Your task to perform on an android device: Search for vegetarian restaurants on Maps Image 0: 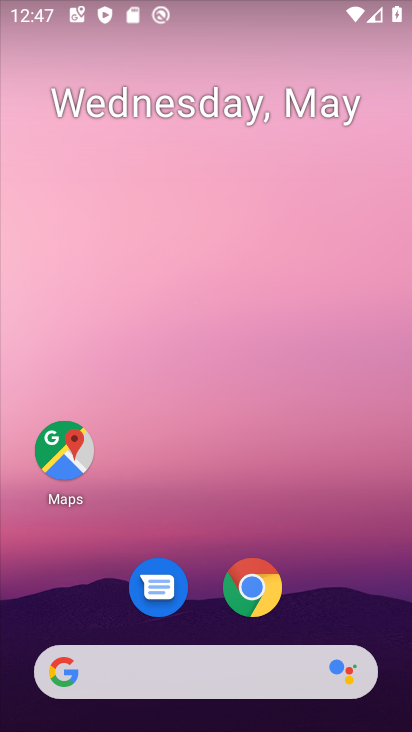
Step 0: drag from (368, 627) to (382, 239)
Your task to perform on an android device: Search for vegetarian restaurants on Maps Image 1: 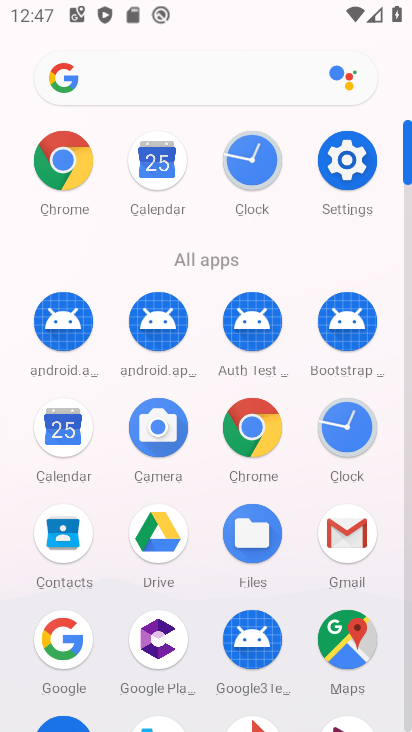
Step 1: click (365, 651)
Your task to perform on an android device: Search for vegetarian restaurants on Maps Image 2: 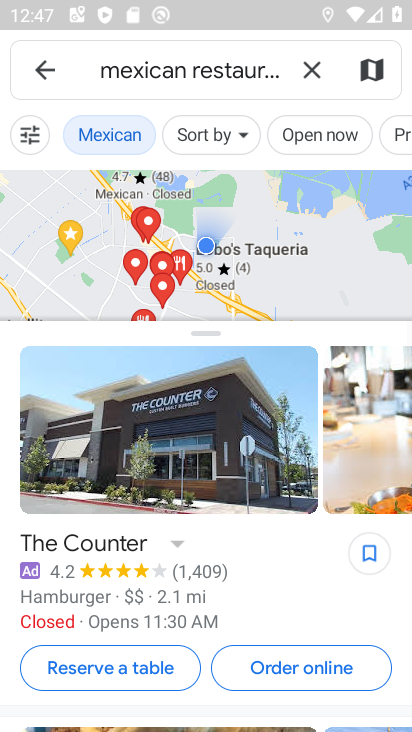
Step 2: click (312, 72)
Your task to perform on an android device: Search for vegetarian restaurants on Maps Image 3: 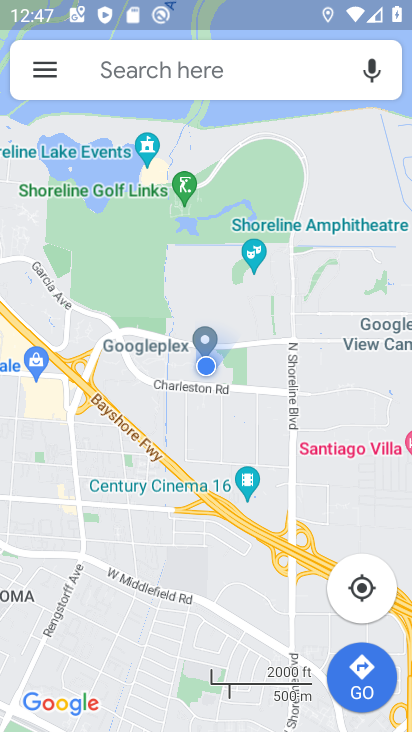
Step 3: click (255, 73)
Your task to perform on an android device: Search for vegetarian restaurants on Maps Image 4: 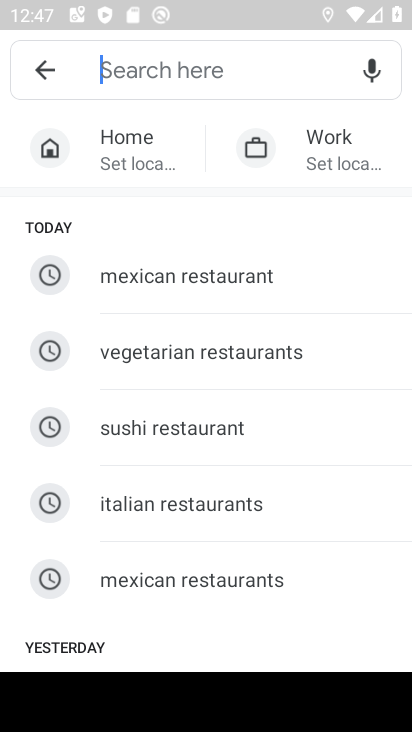
Step 4: type "vegetrain restaurants"
Your task to perform on an android device: Search for vegetarian restaurants on Maps Image 5: 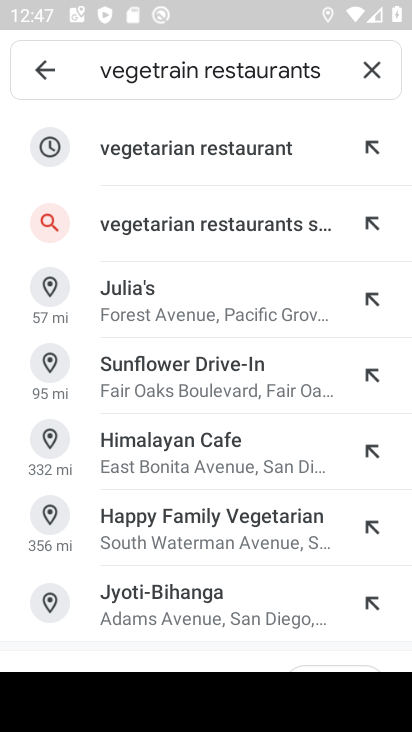
Step 5: click (226, 166)
Your task to perform on an android device: Search for vegetarian restaurants on Maps Image 6: 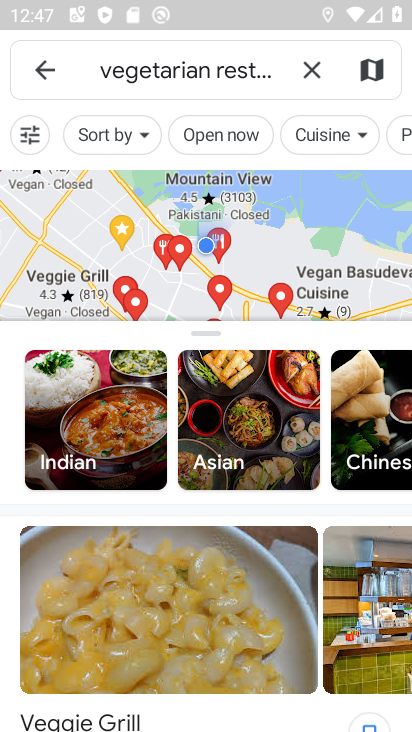
Step 6: task complete